Your task to perform on an android device: Go to notification settings Image 0: 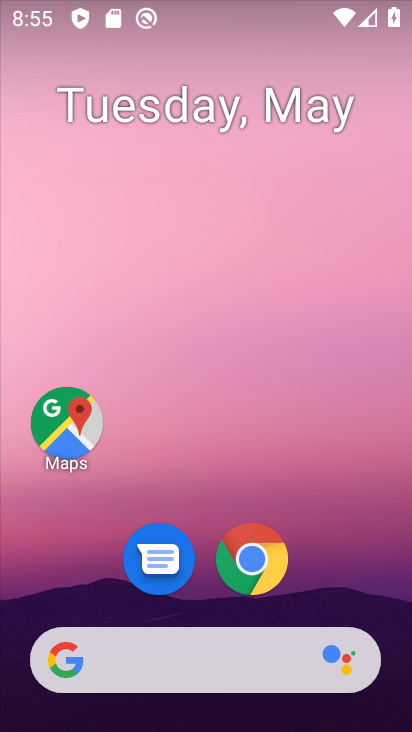
Step 0: drag from (344, 564) to (346, 180)
Your task to perform on an android device: Go to notification settings Image 1: 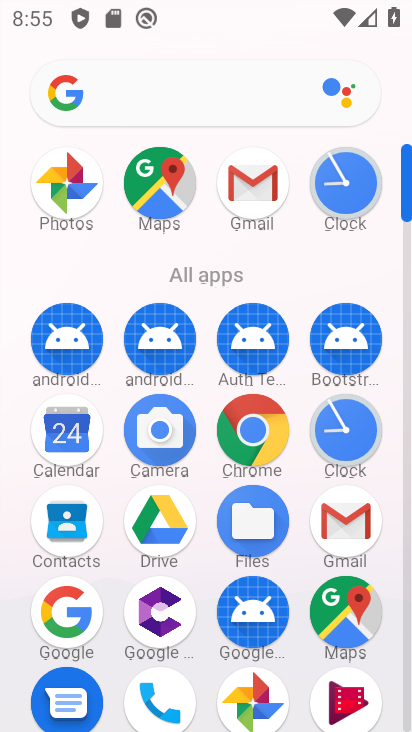
Step 1: drag from (288, 621) to (347, 279)
Your task to perform on an android device: Go to notification settings Image 2: 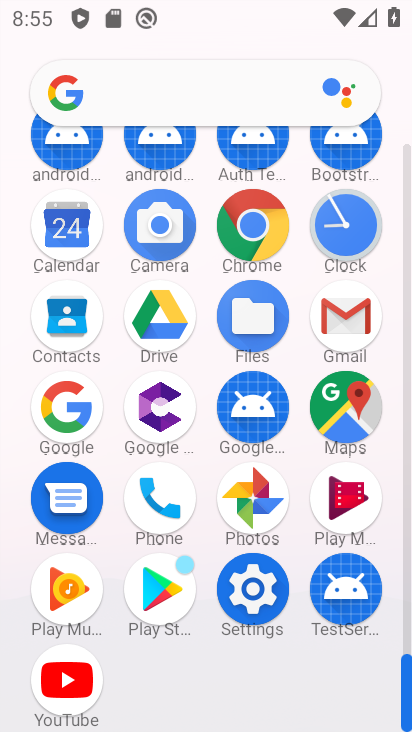
Step 2: click (258, 615)
Your task to perform on an android device: Go to notification settings Image 3: 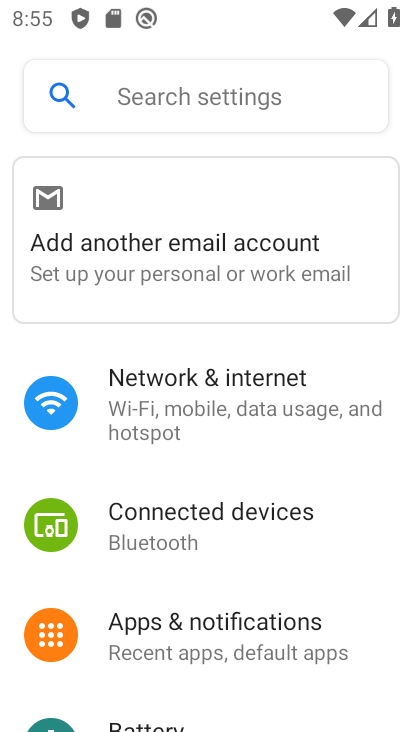
Step 3: click (310, 396)
Your task to perform on an android device: Go to notification settings Image 4: 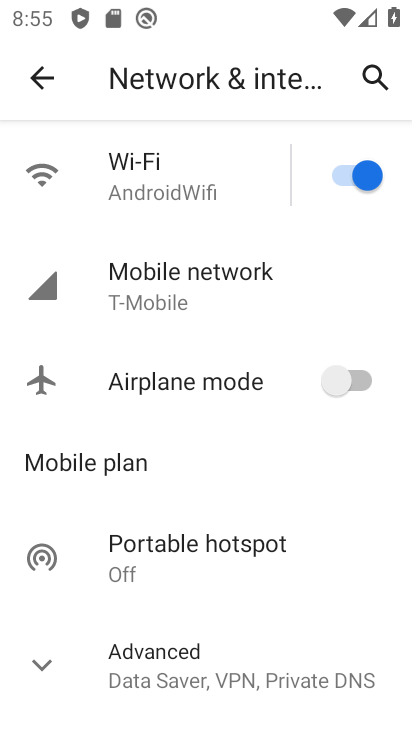
Step 4: click (53, 81)
Your task to perform on an android device: Go to notification settings Image 5: 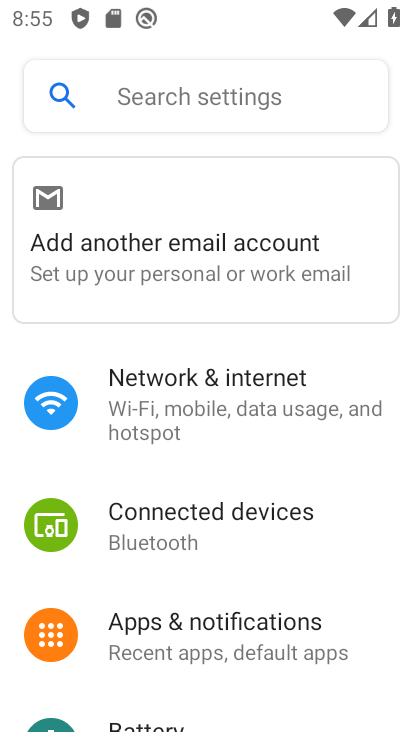
Step 5: click (217, 646)
Your task to perform on an android device: Go to notification settings Image 6: 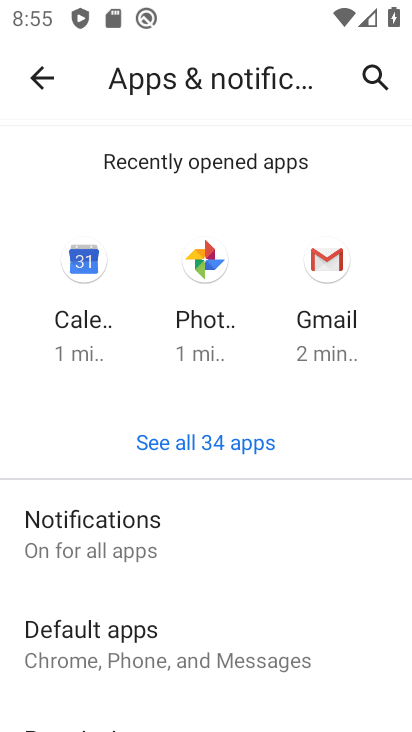
Step 6: click (73, 546)
Your task to perform on an android device: Go to notification settings Image 7: 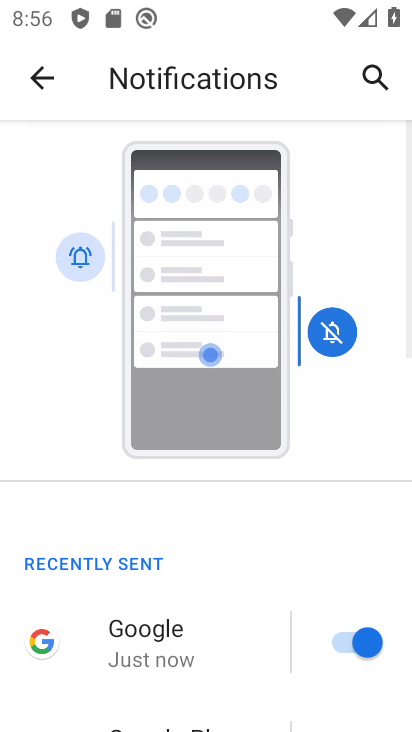
Step 7: task complete